Your task to perform on an android device: Show me popular games on the Play Store Image 0: 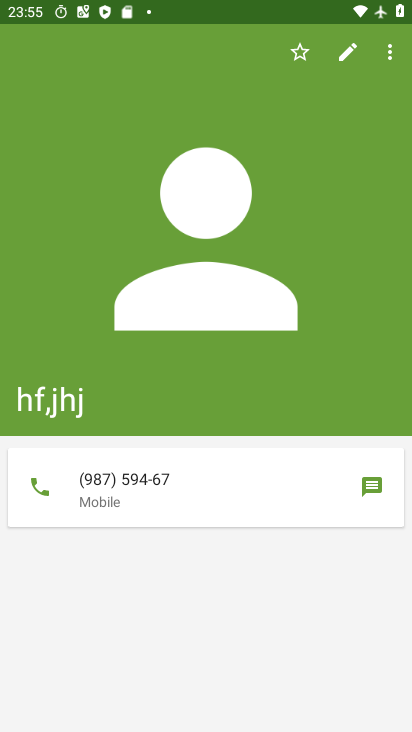
Step 0: press home button
Your task to perform on an android device: Show me popular games on the Play Store Image 1: 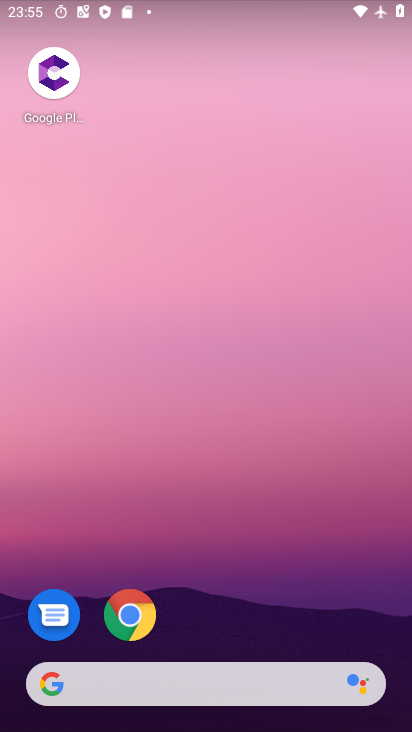
Step 1: drag from (214, 628) to (276, 102)
Your task to perform on an android device: Show me popular games on the Play Store Image 2: 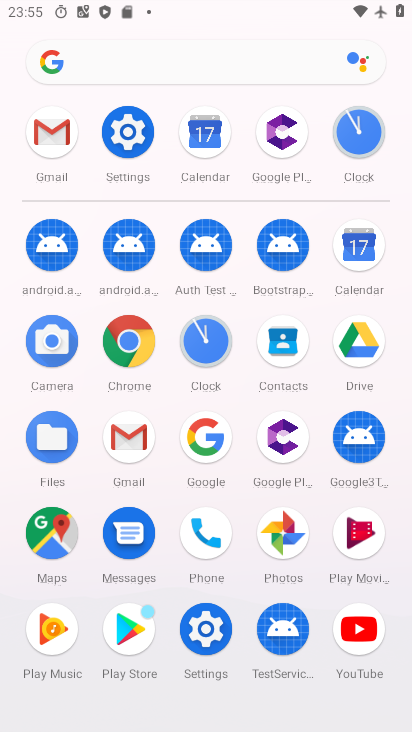
Step 2: click (147, 628)
Your task to perform on an android device: Show me popular games on the Play Store Image 3: 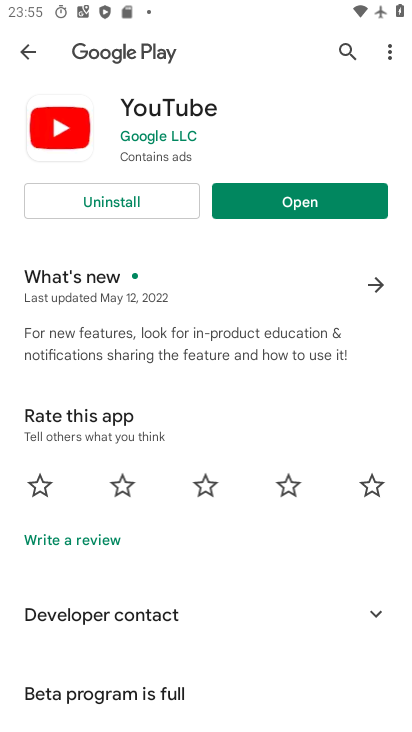
Step 3: click (23, 50)
Your task to perform on an android device: Show me popular games on the Play Store Image 4: 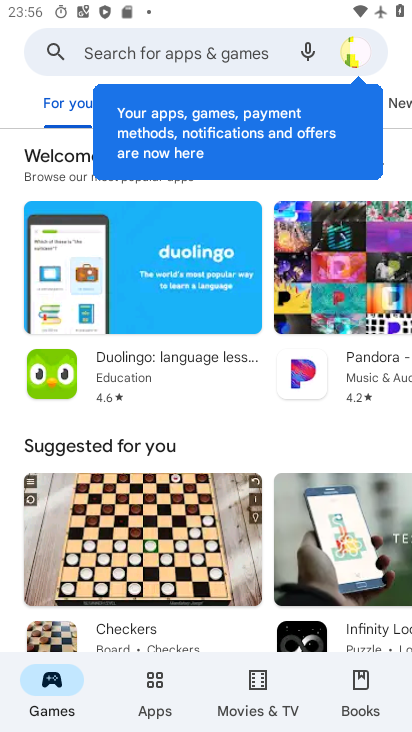
Step 4: drag from (153, 679) to (108, 686)
Your task to perform on an android device: Show me popular games on the Play Store Image 5: 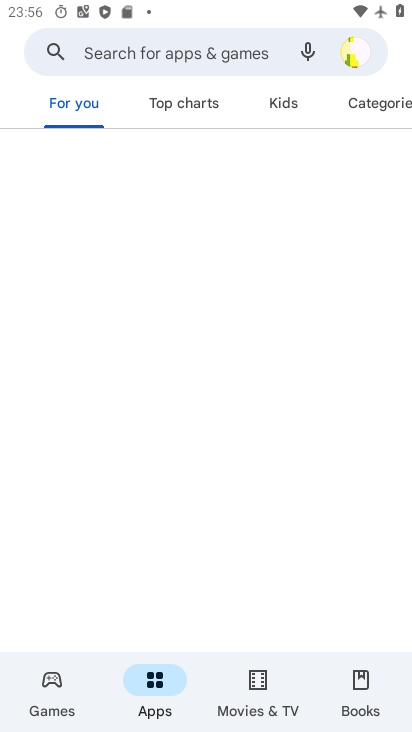
Step 5: drag from (248, 94) to (198, 94)
Your task to perform on an android device: Show me popular games on the Play Store Image 6: 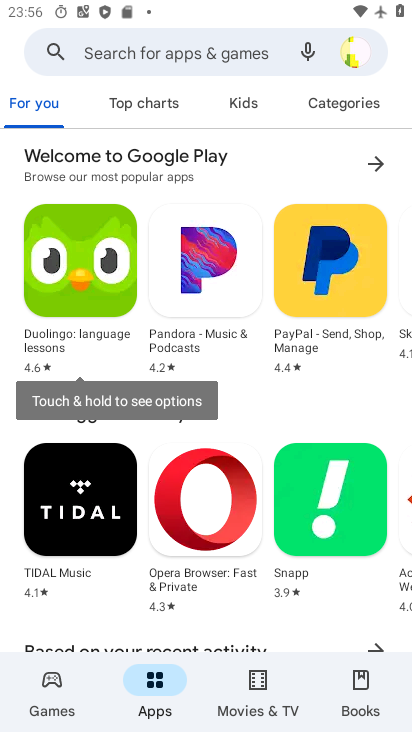
Step 6: click (55, 675)
Your task to perform on an android device: Show me popular games on the Play Store Image 7: 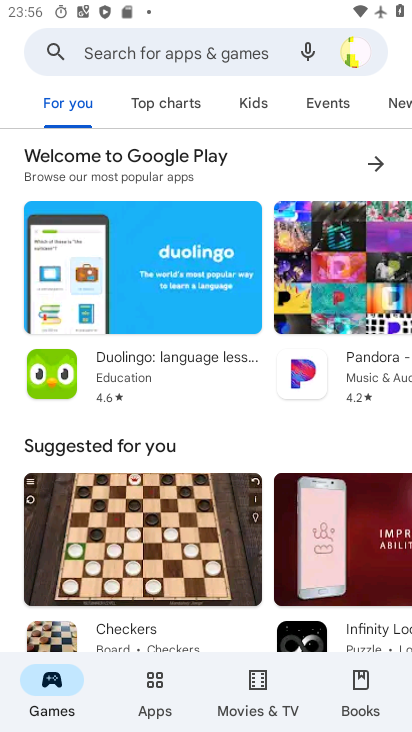
Step 7: drag from (306, 105) to (168, 95)
Your task to perform on an android device: Show me popular games on the Play Store Image 8: 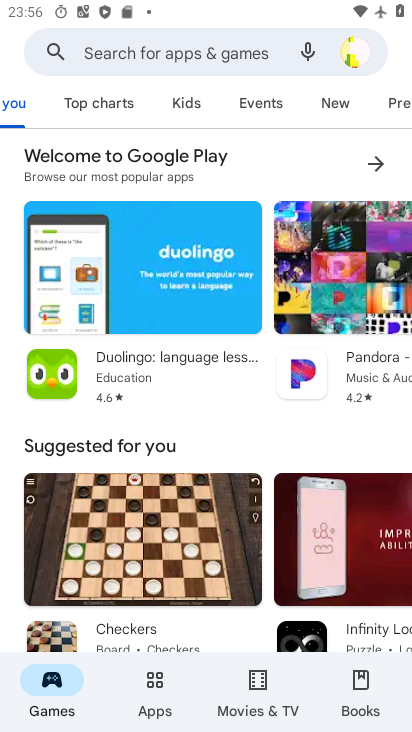
Step 8: drag from (284, 104) to (217, 104)
Your task to perform on an android device: Show me popular games on the Play Store Image 9: 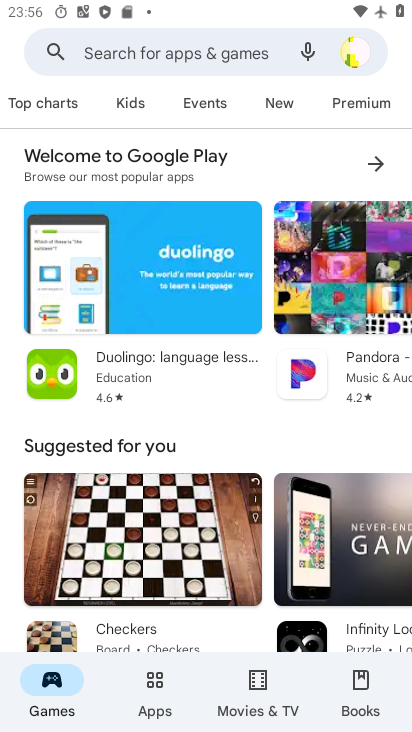
Step 9: drag from (293, 102) to (208, 102)
Your task to perform on an android device: Show me popular games on the Play Store Image 10: 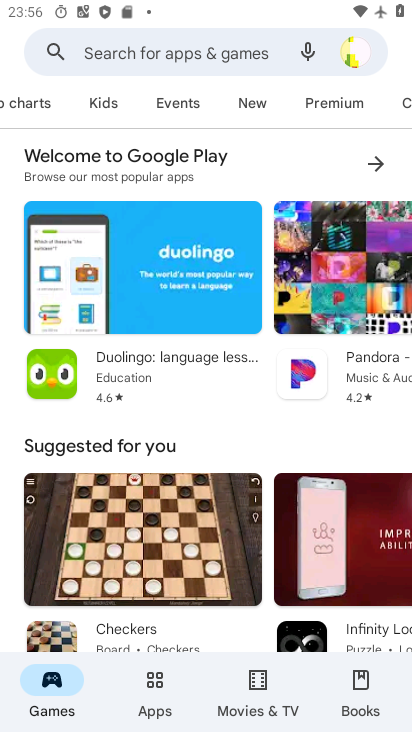
Step 10: click (29, 100)
Your task to perform on an android device: Show me popular games on the Play Store Image 11: 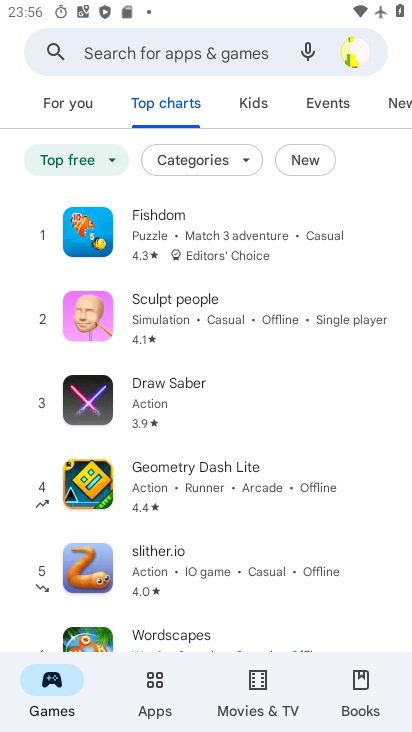
Step 11: drag from (194, 533) to (167, 307)
Your task to perform on an android device: Show me popular games on the Play Store Image 12: 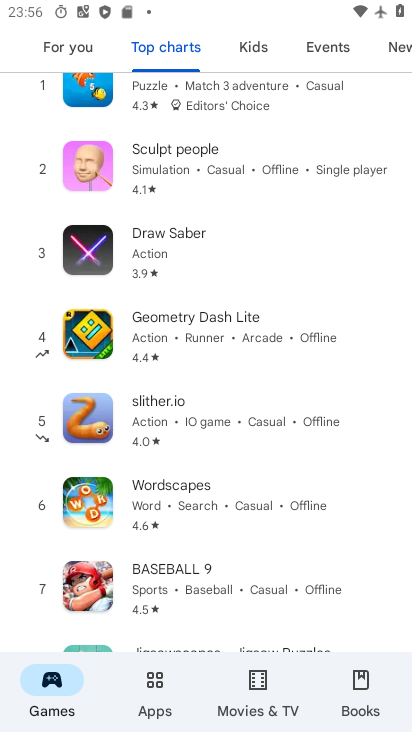
Step 12: drag from (236, 284) to (236, 391)
Your task to perform on an android device: Show me popular games on the Play Store Image 13: 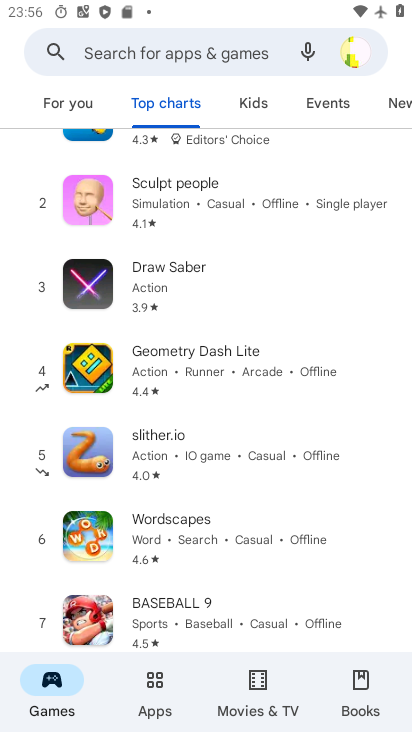
Step 13: drag from (206, 235) to (243, 410)
Your task to perform on an android device: Show me popular games on the Play Store Image 14: 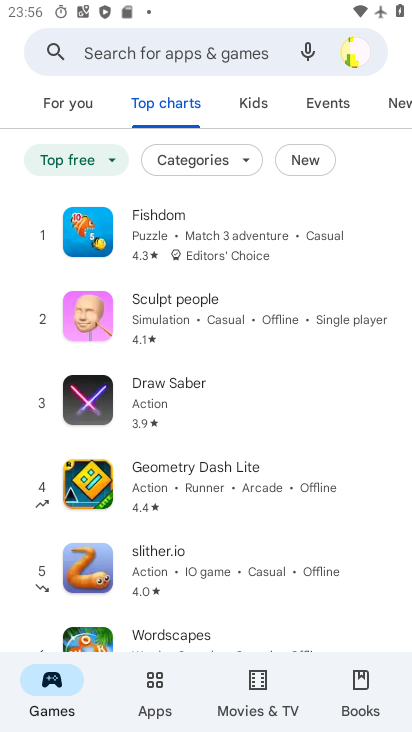
Step 14: click (248, 151)
Your task to perform on an android device: Show me popular games on the Play Store Image 15: 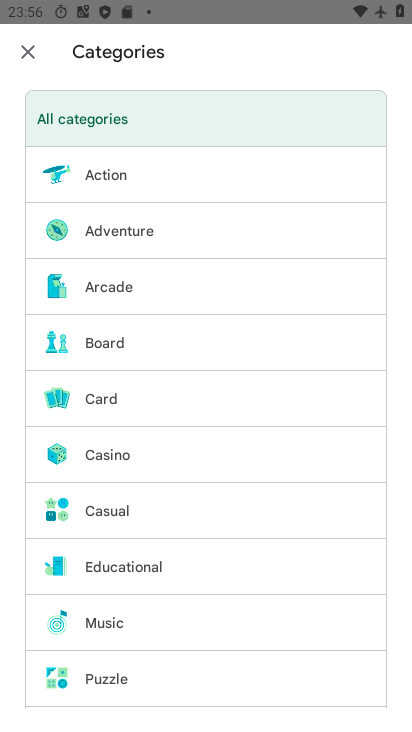
Step 15: drag from (222, 627) to (199, 160)
Your task to perform on an android device: Show me popular games on the Play Store Image 16: 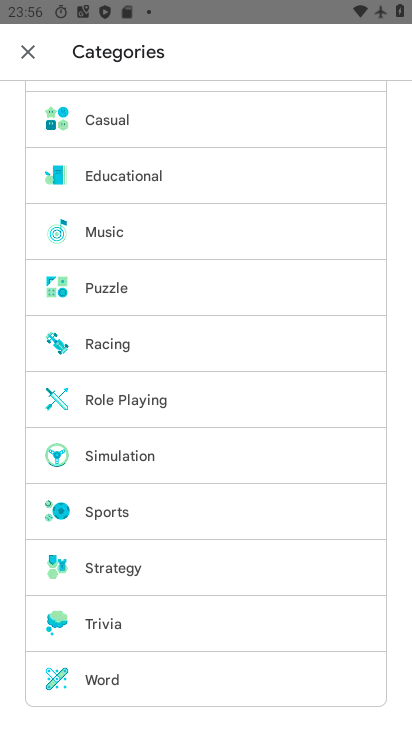
Step 16: drag from (72, 635) to (174, 380)
Your task to perform on an android device: Show me popular games on the Play Store Image 17: 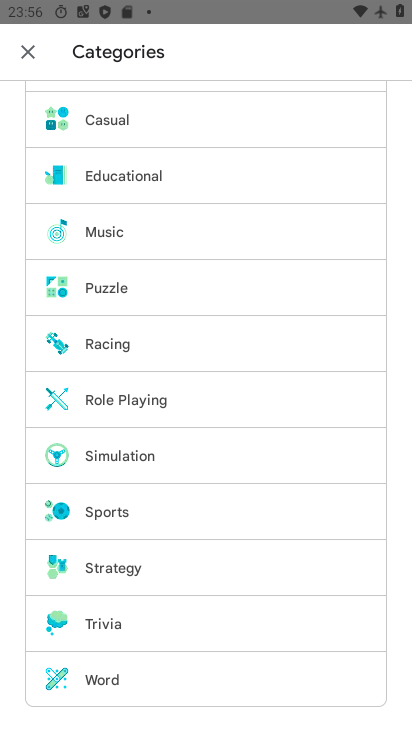
Step 17: click (31, 56)
Your task to perform on an android device: Show me popular games on the Play Store Image 18: 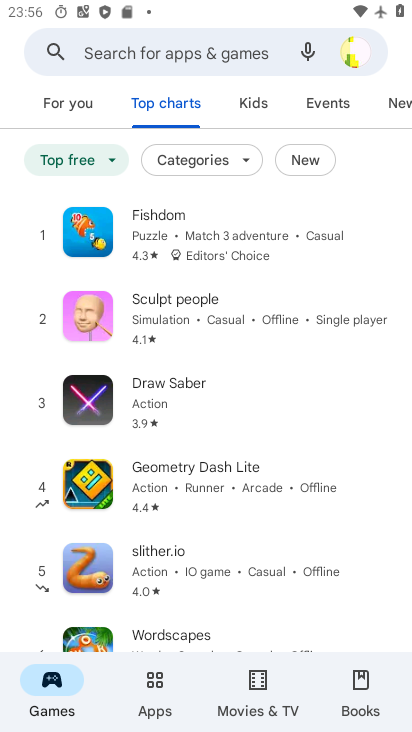
Step 18: task complete